Your task to perform on an android device: turn pop-ups off in chrome Image 0: 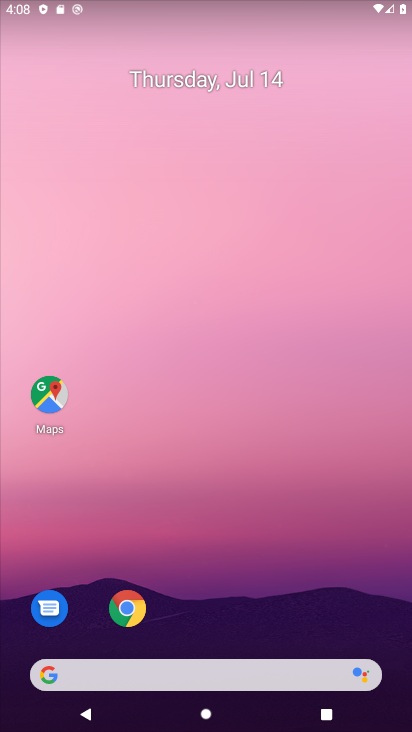
Step 0: click (134, 620)
Your task to perform on an android device: turn pop-ups off in chrome Image 1: 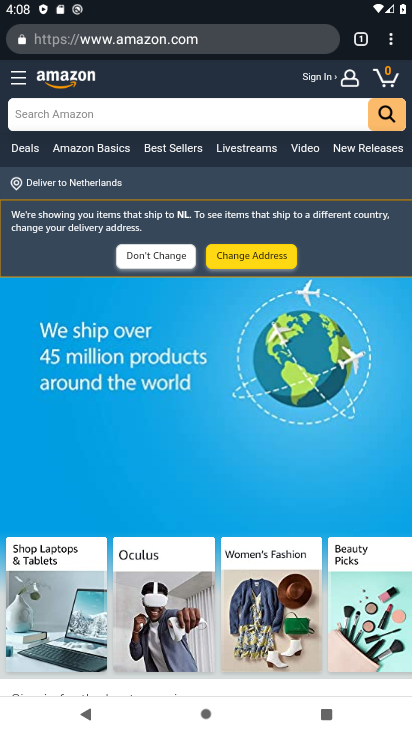
Step 1: click (394, 41)
Your task to perform on an android device: turn pop-ups off in chrome Image 2: 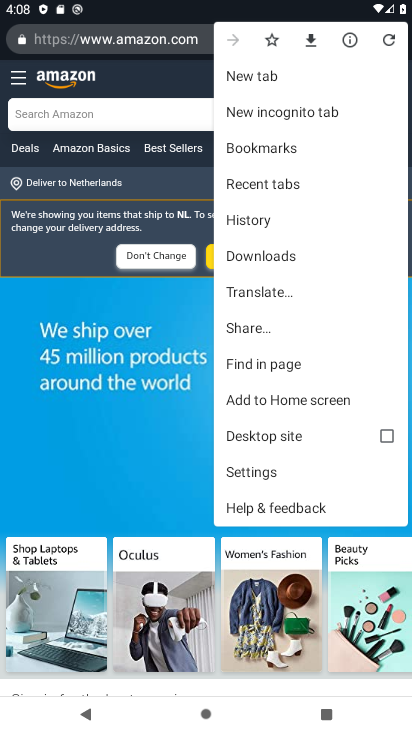
Step 2: click (265, 472)
Your task to perform on an android device: turn pop-ups off in chrome Image 3: 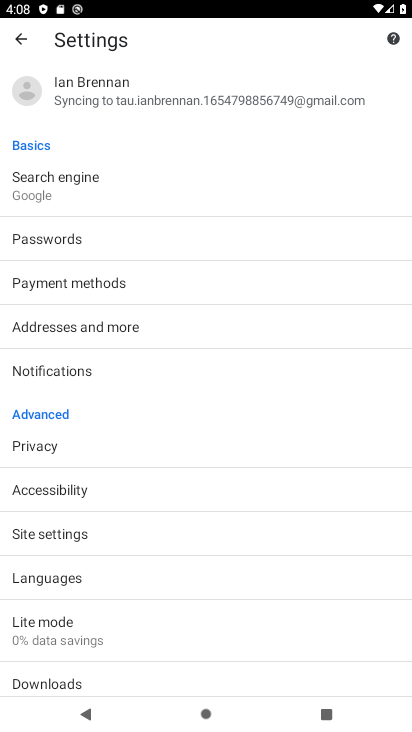
Step 3: click (110, 532)
Your task to perform on an android device: turn pop-ups off in chrome Image 4: 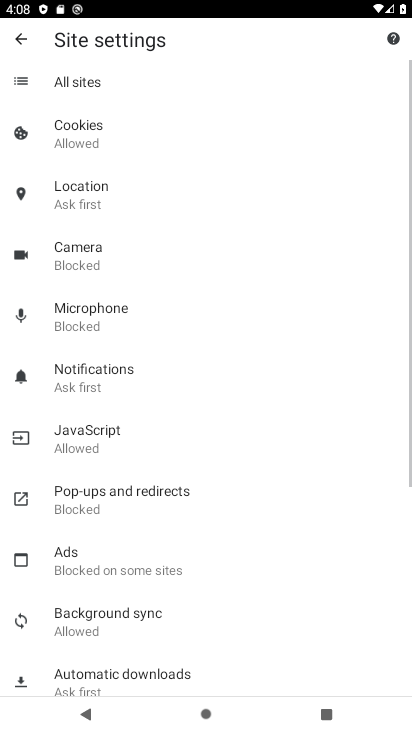
Step 4: click (133, 510)
Your task to perform on an android device: turn pop-ups off in chrome Image 5: 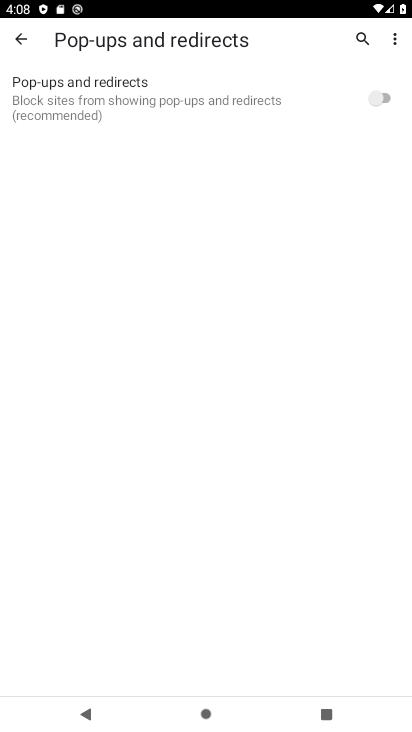
Step 5: task complete